Your task to perform on an android device: move a message to another label in the gmail app Image 0: 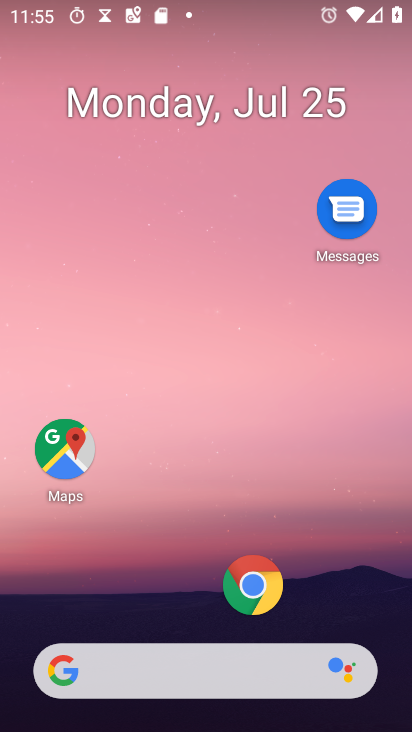
Step 0: press home button
Your task to perform on an android device: move a message to another label in the gmail app Image 1: 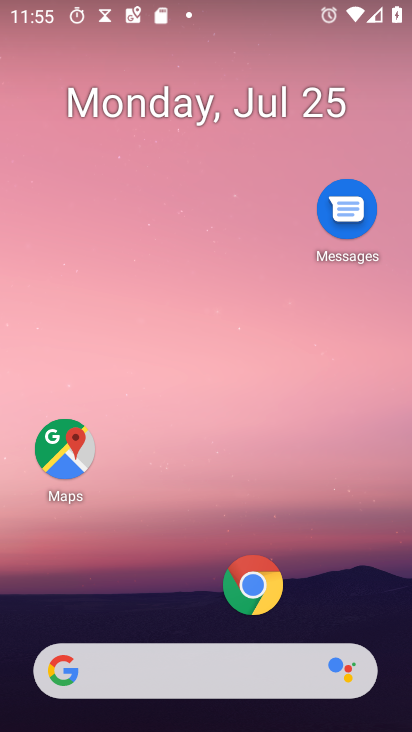
Step 1: drag from (202, 662) to (235, 184)
Your task to perform on an android device: move a message to another label in the gmail app Image 2: 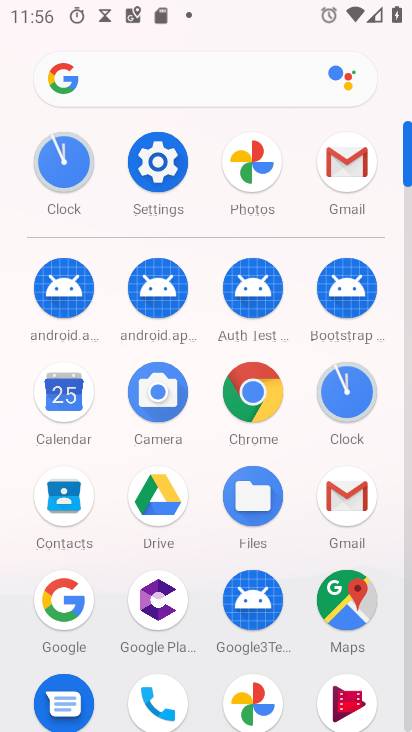
Step 2: click (342, 161)
Your task to perform on an android device: move a message to another label in the gmail app Image 3: 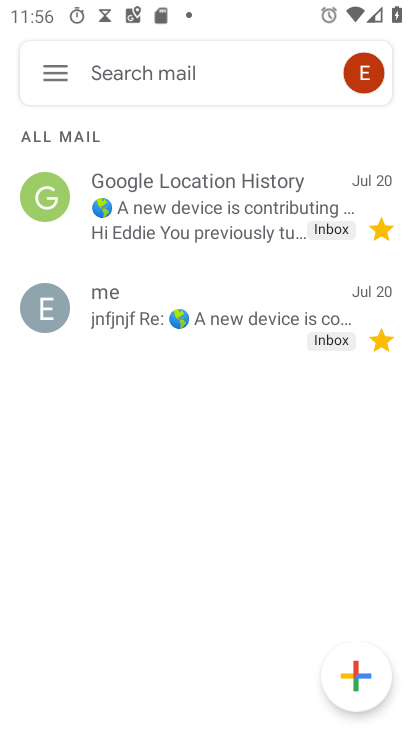
Step 3: click (202, 213)
Your task to perform on an android device: move a message to another label in the gmail app Image 4: 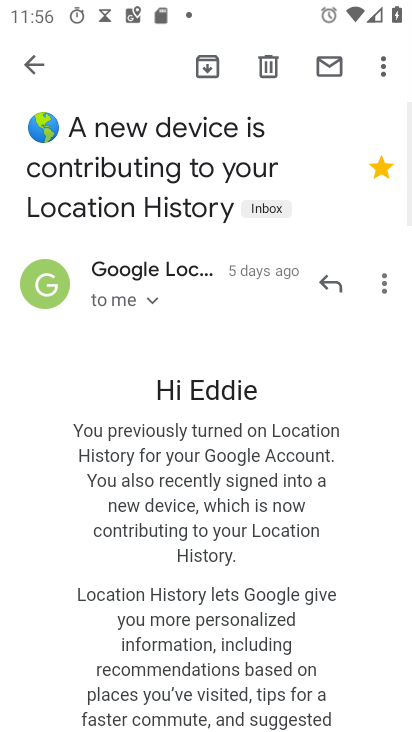
Step 4: click (267, 209)
Your task to perform on an android device: move a message to another label in the gmail app Image 5: 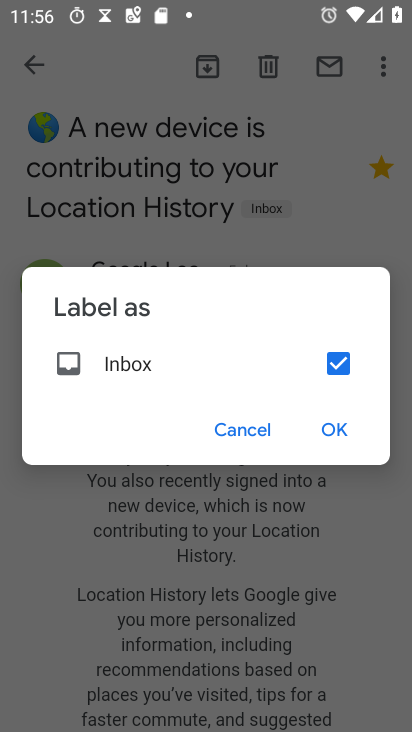
Step 5: task complete